Your task to perform on an android device: Open the phone app and click the voicemail tab. Image 0: 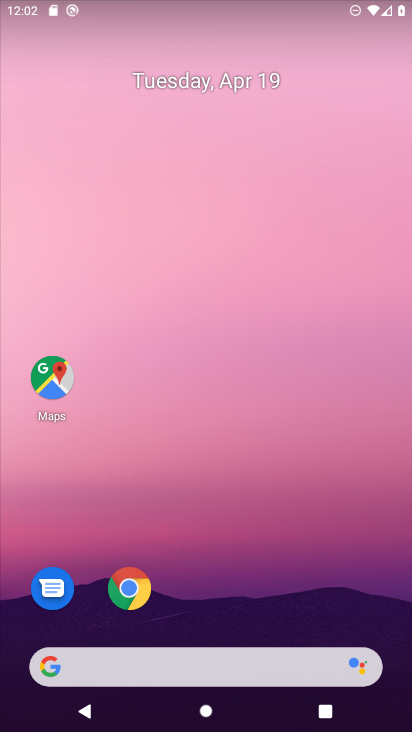
Step 0: drag from (341, 598) to (249, 55)
Your task to perform on an android device: Open the phone app and click the voicemail tab. Image 1: 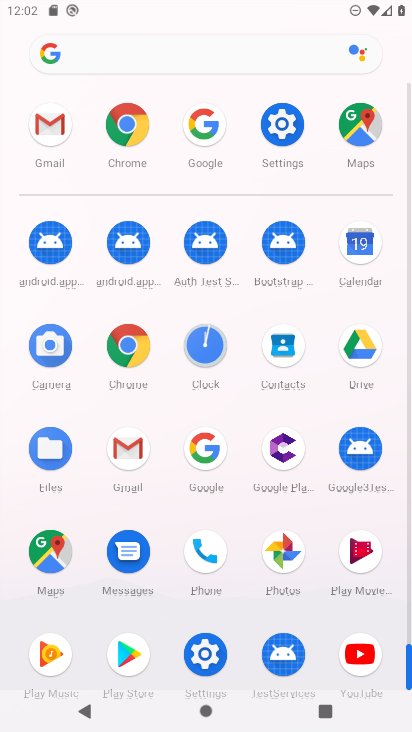
Step 1: click (206, 544)
Your task to perform on an android device: Open the phone app and click the voicemail tab. Image 2: 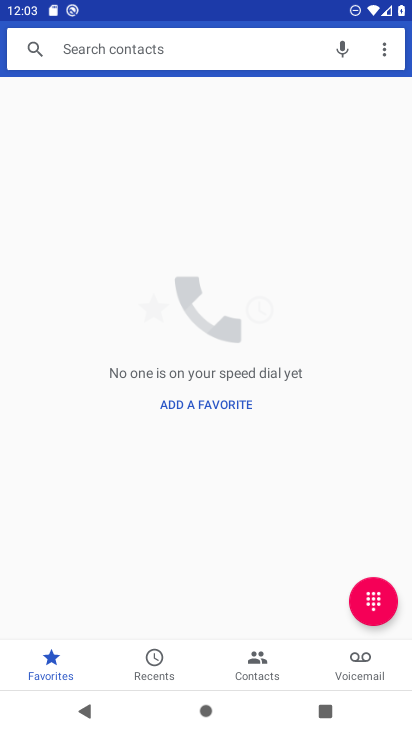
Step 2: click (356, 657)
Your task to perform on an android device: Open the phone app and click the voicemail tab. Image 3: 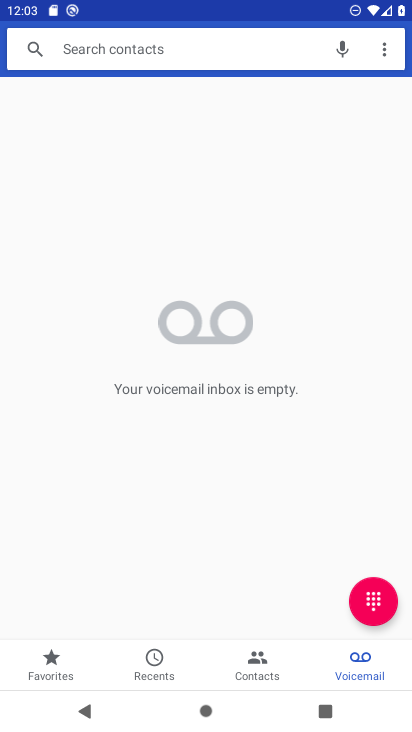
Step 3: task complete